Your task to perform on an android device: turn off data saver in the chrome app Image 0: 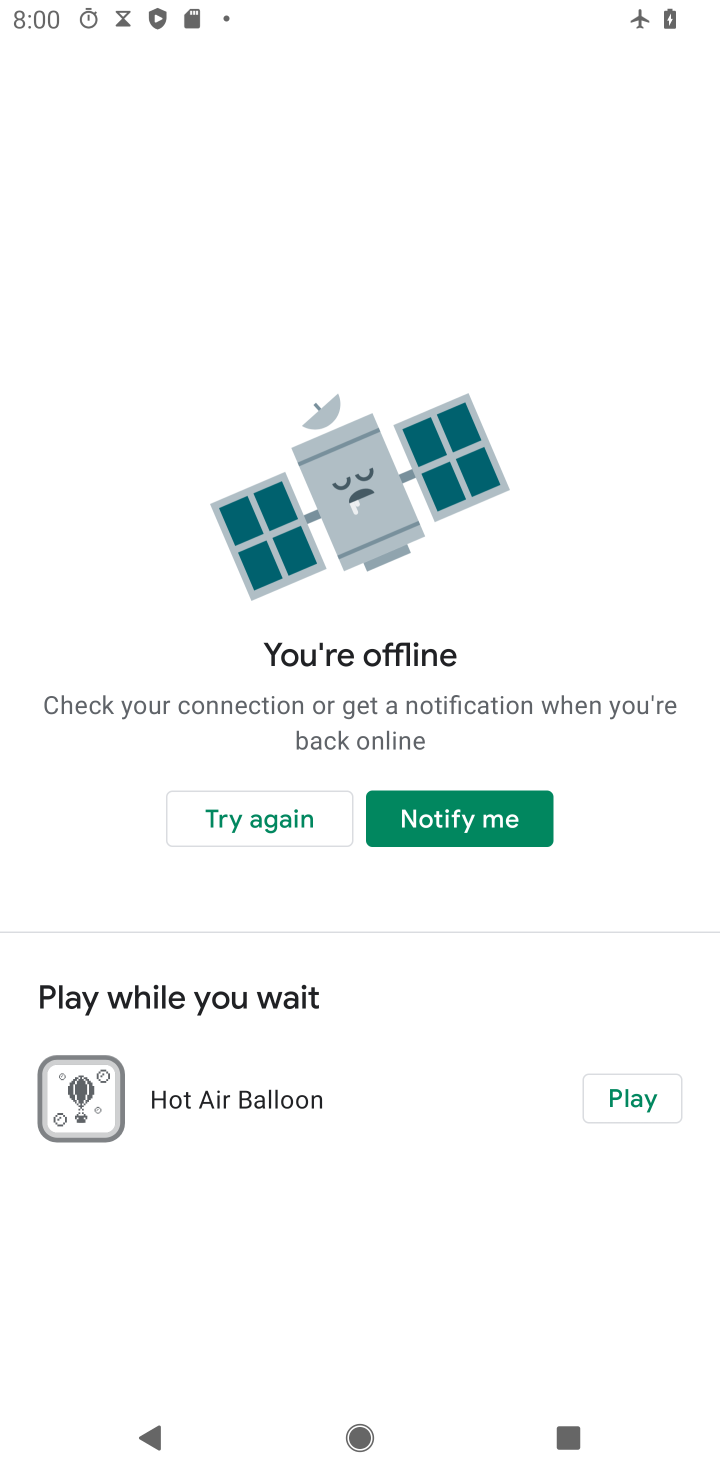
Step 0: press home button
Your task to perform on an android device: turn off data saver in the chrome app Image 1: 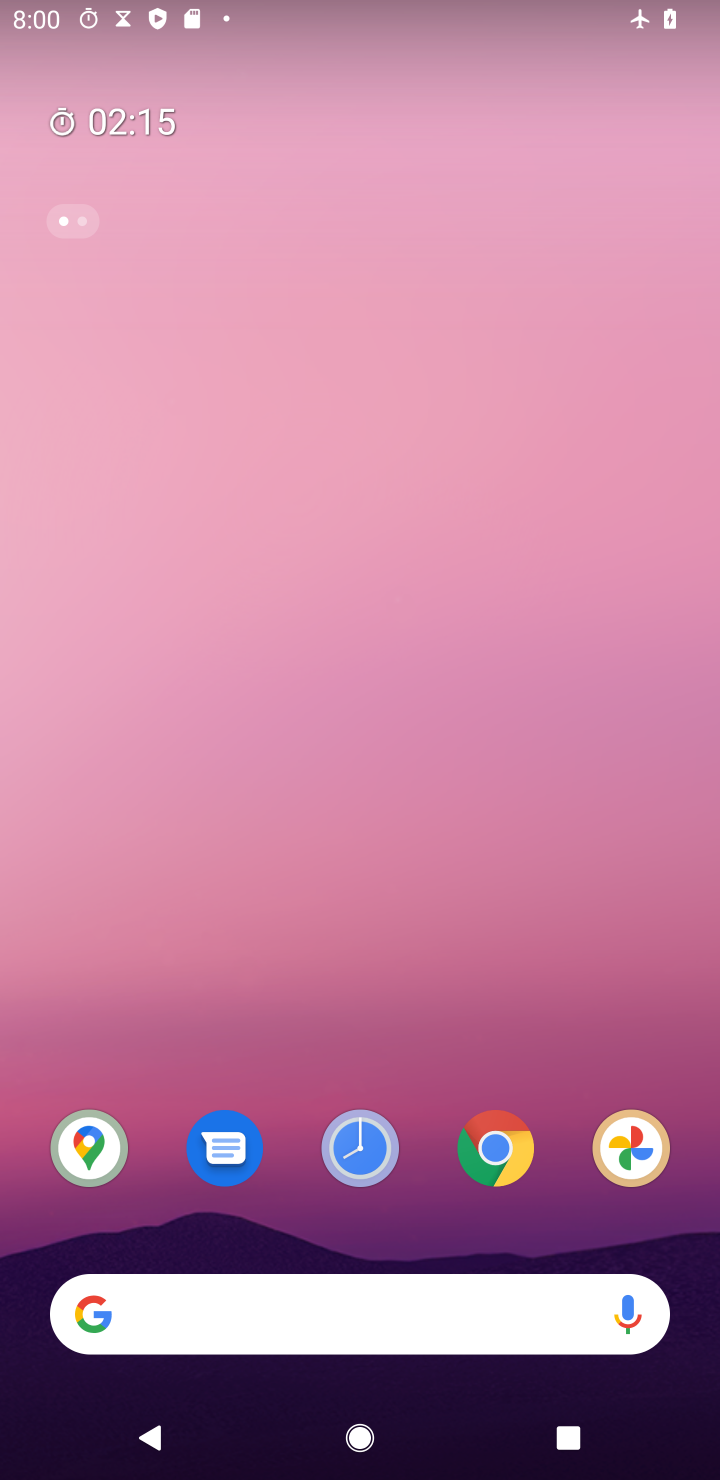
Step 1: click (506, 1143)
Your task to perform on an android device: turn off data saver in the chrome app Image 2: 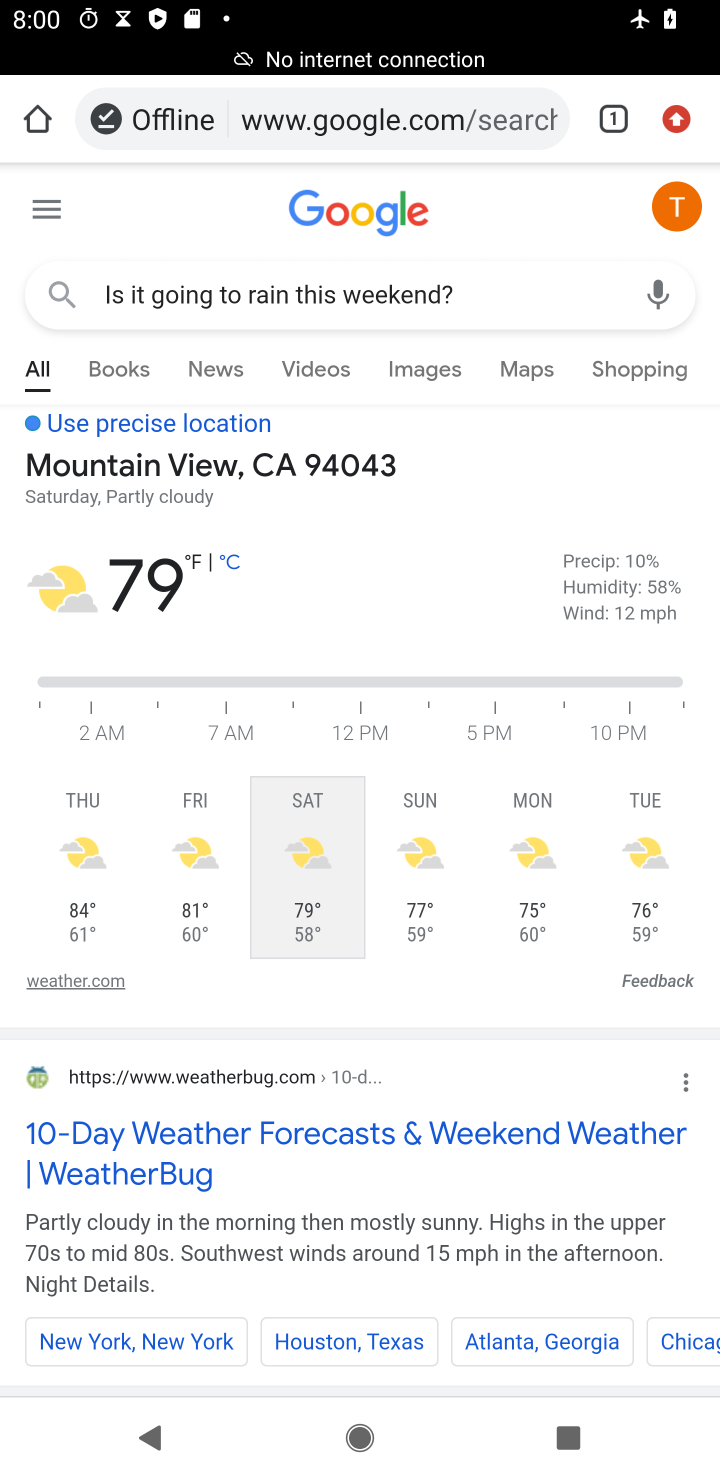
Step 2: click (670, 110)
Your task to perform on an android device: turn off data saver in the chrome app Image 3: 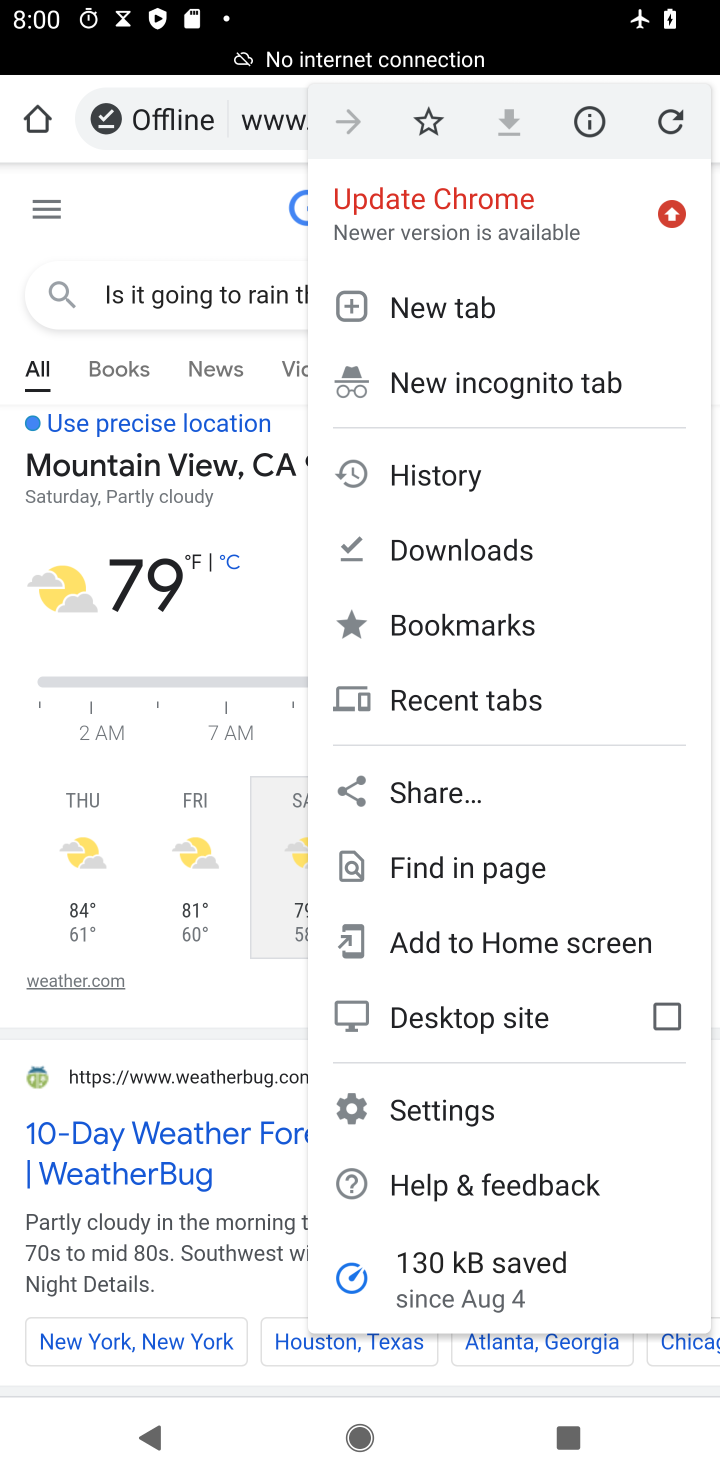
Step 3: click (588, 1106)
Your task to perform on an android device: turn off data saver in the chrome app Image 4: 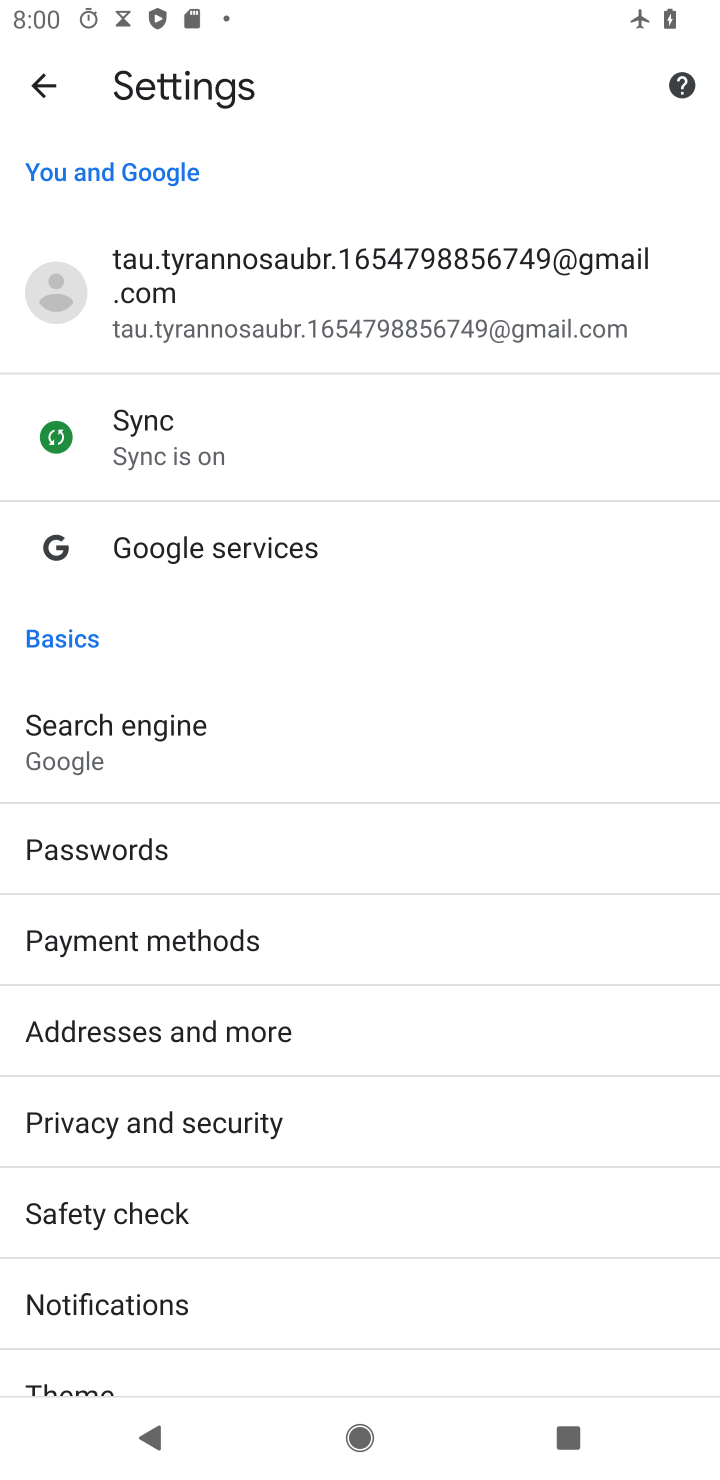
Step 4: drag from (538, 1352) to (447, 243)
Your task to perform on an android device: turn off data saver in the chrome app Image 5: 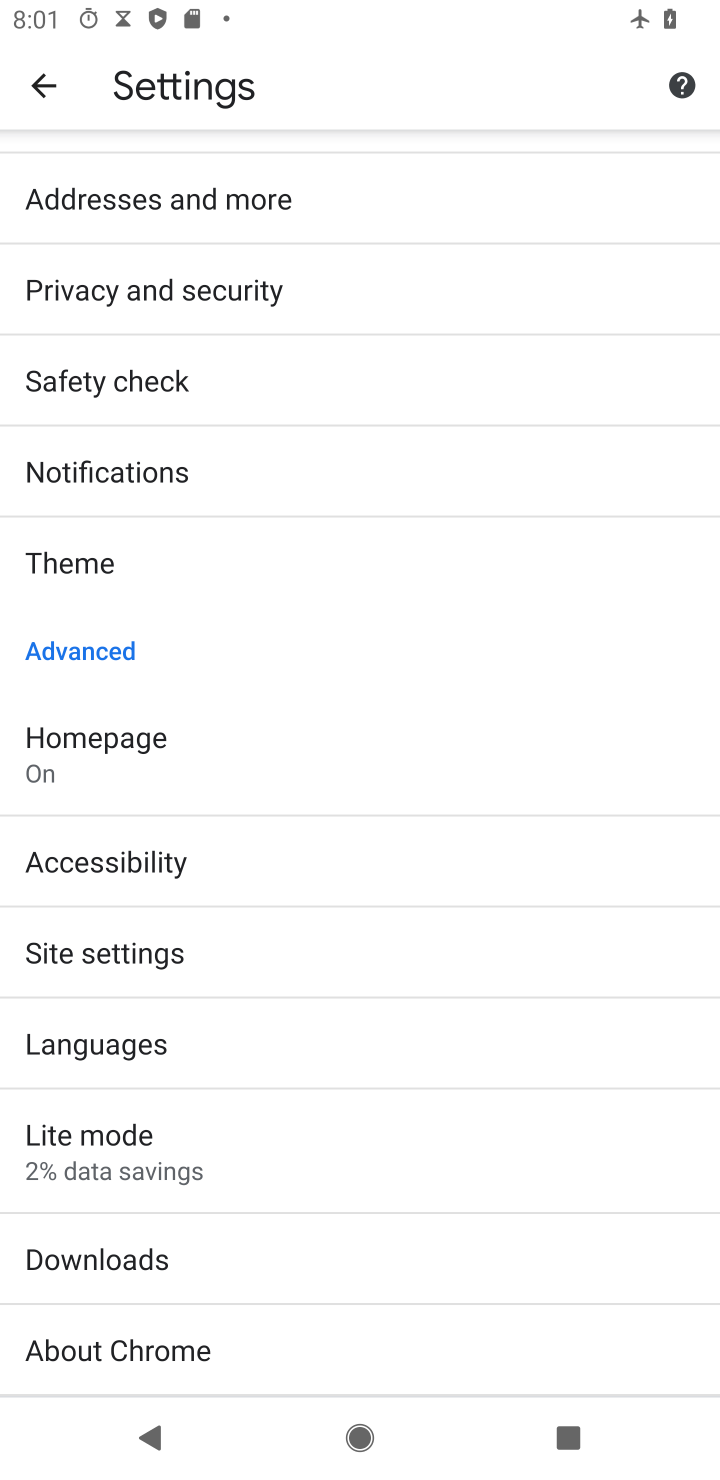
Step 5: click (390, 1169)
Your task to perform on an android device: turn off data saver in the chrome app Image 6: 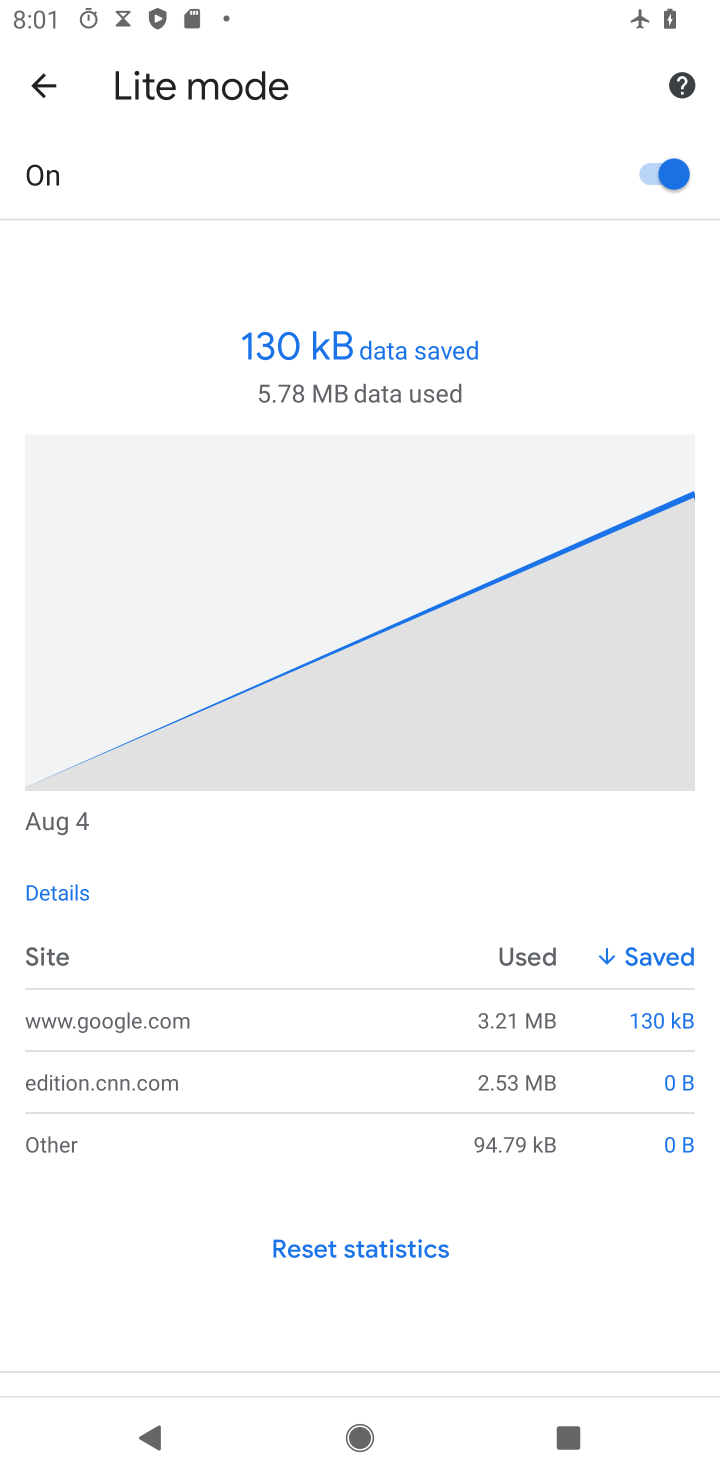
Step 6: click (675, 160)
Your task to perform on an android device: turn off data saver in the chrome app Image 7: 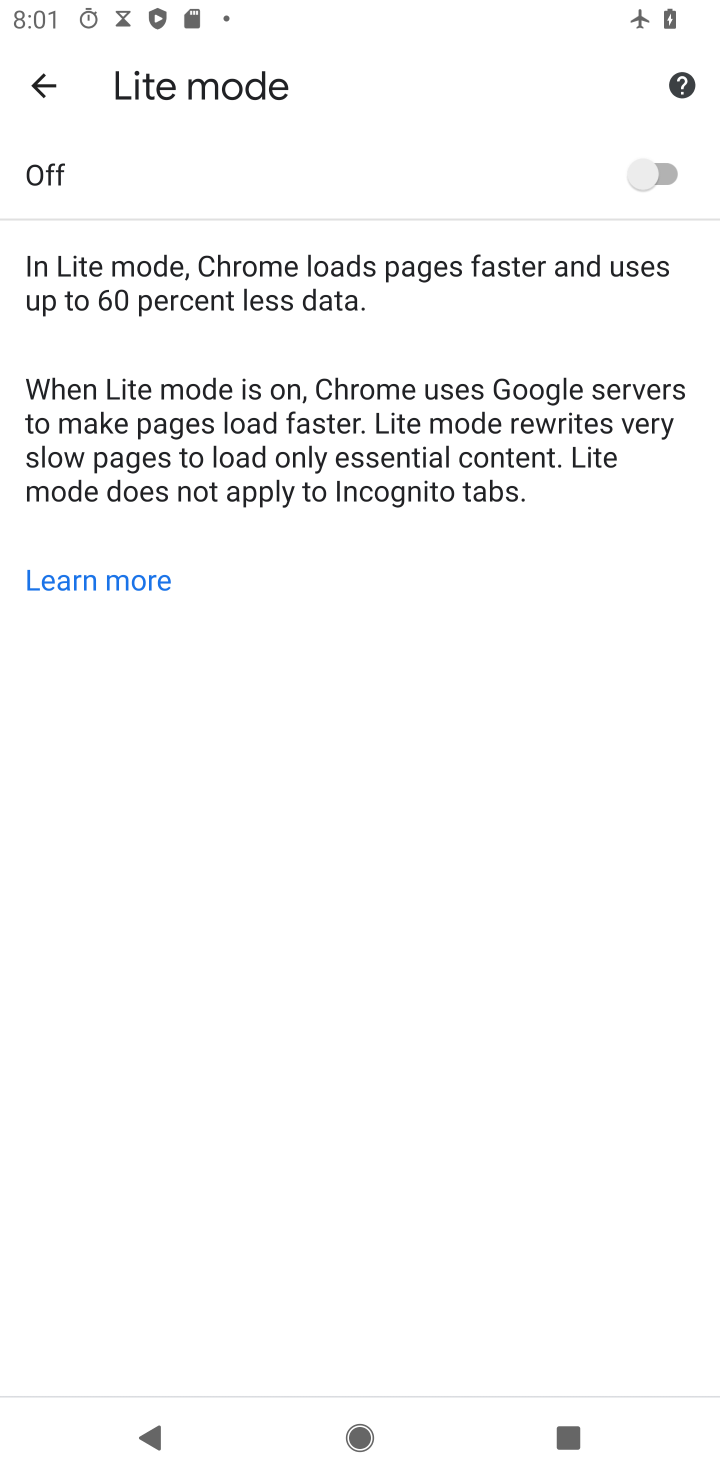
Step 7: task complete